Your task to perform on an android device: change the clock style Image 0: 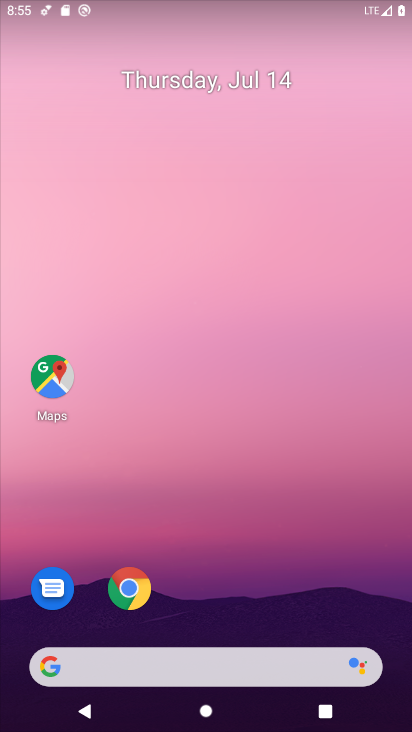
Step 0: drag from (299, 583) to (354, 75)
Your task to perform on an android device: change the clock style Image 1: 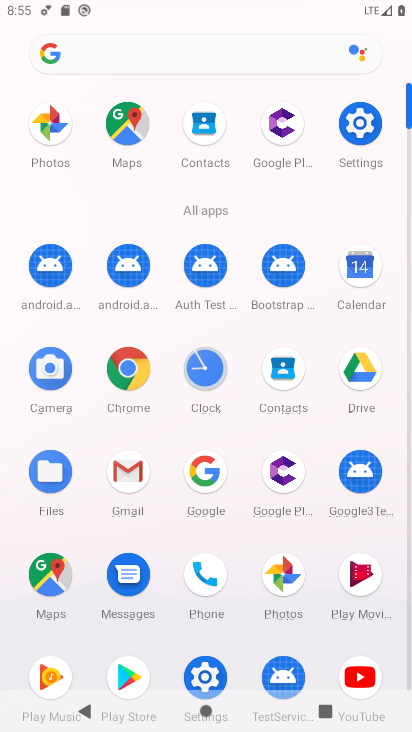
Step 1: click (206, 362)
Your task to perform on an android device: change the clock style Image 2: 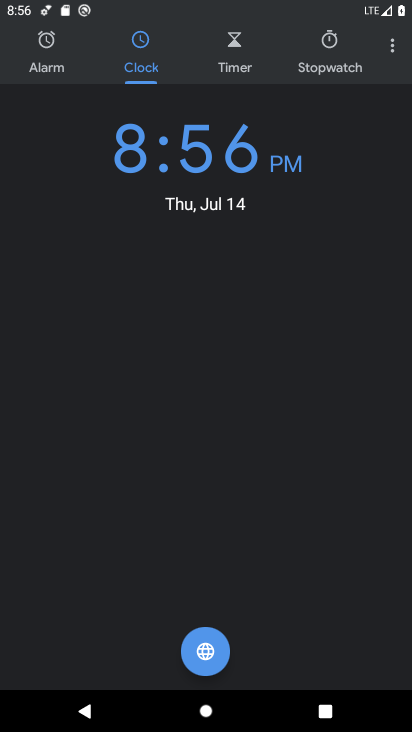
Step 2: click (389, 51)
Your task to perform on an android device: change the clock style Image 3: 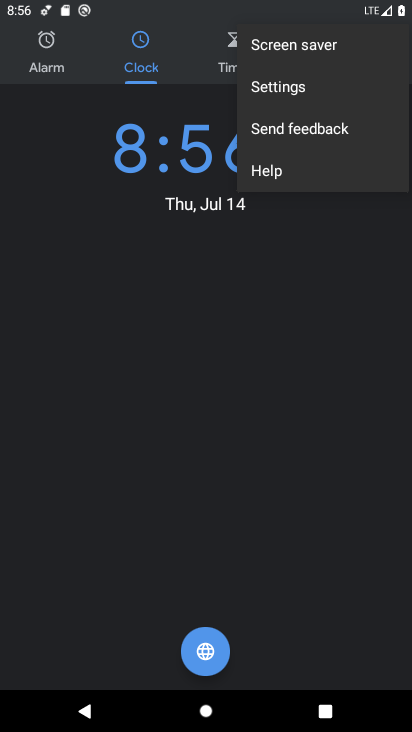
Step 3: click (293, 82)
Your task to perform on an android device: change the clock style Image 4: 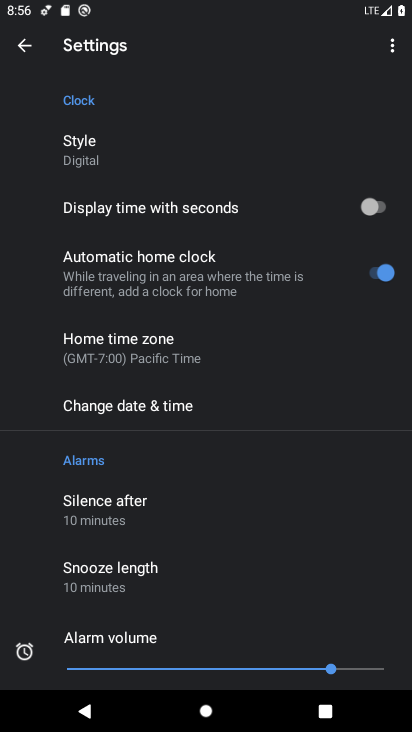
Step 4: click (113, 152)
Your task to perform on an android device: change the clock style Image 5: 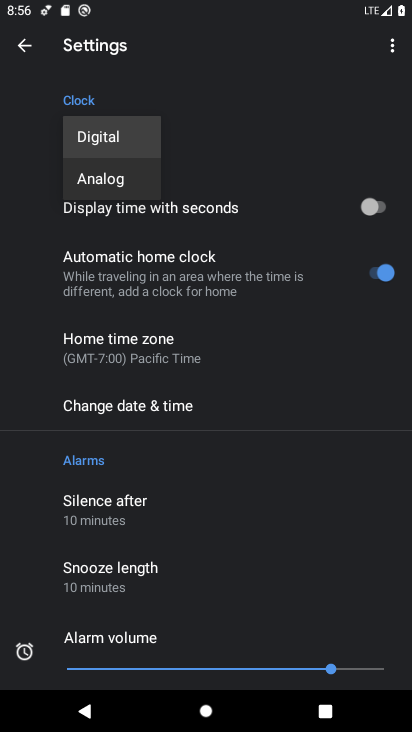
Step 5: click (111, 173)
Your task to perform on an android device: change the clock style Image 6: 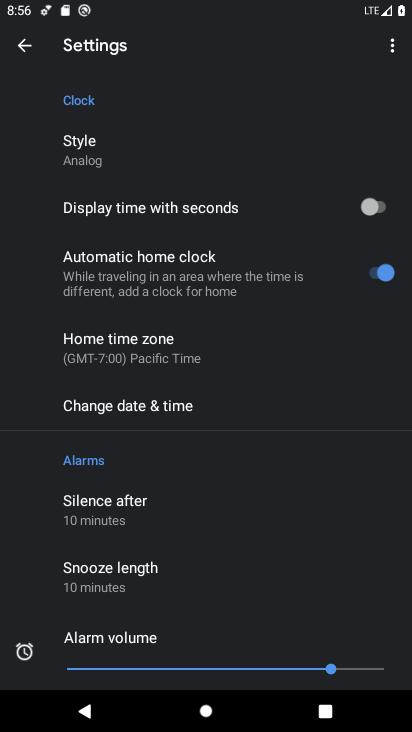
Step 6: task complete